Your task to perform on an android device: turn pop-ups off in chrome Image 0: 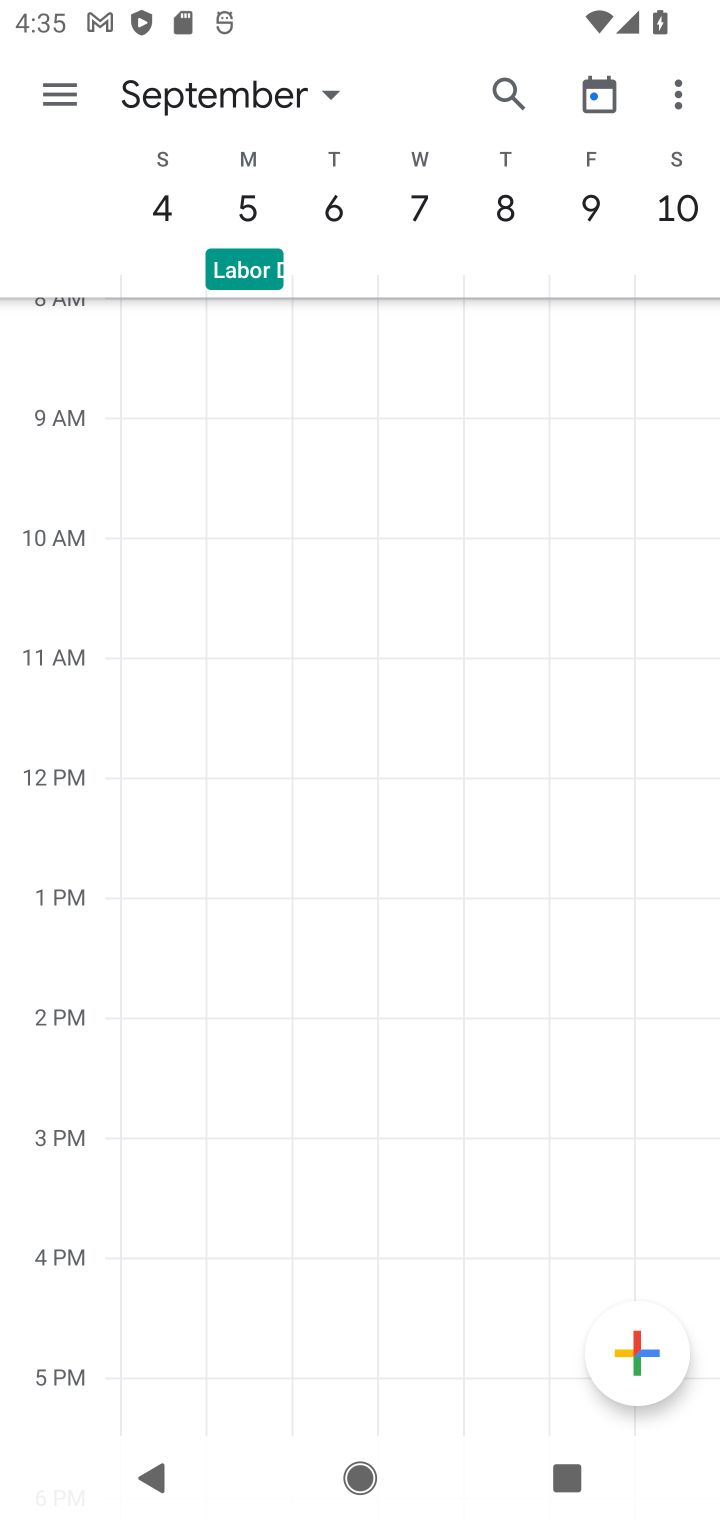
Step 0: press home button
Your task to perform on an android device: turn pop-ups off in chrome Image 1: 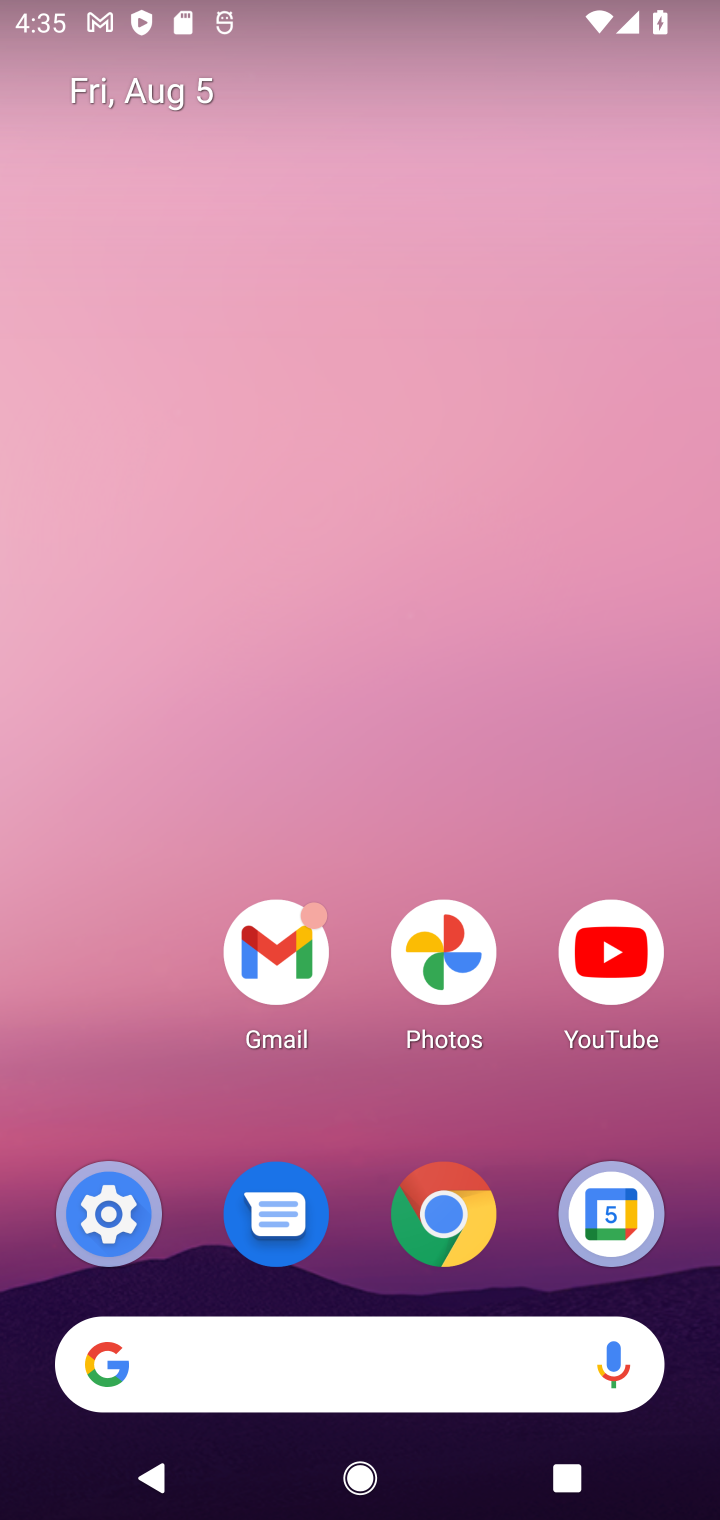
Step 1: click (431, 1205)
Your task to perform on an android device: turn pop-ups off in chrome Image 2: 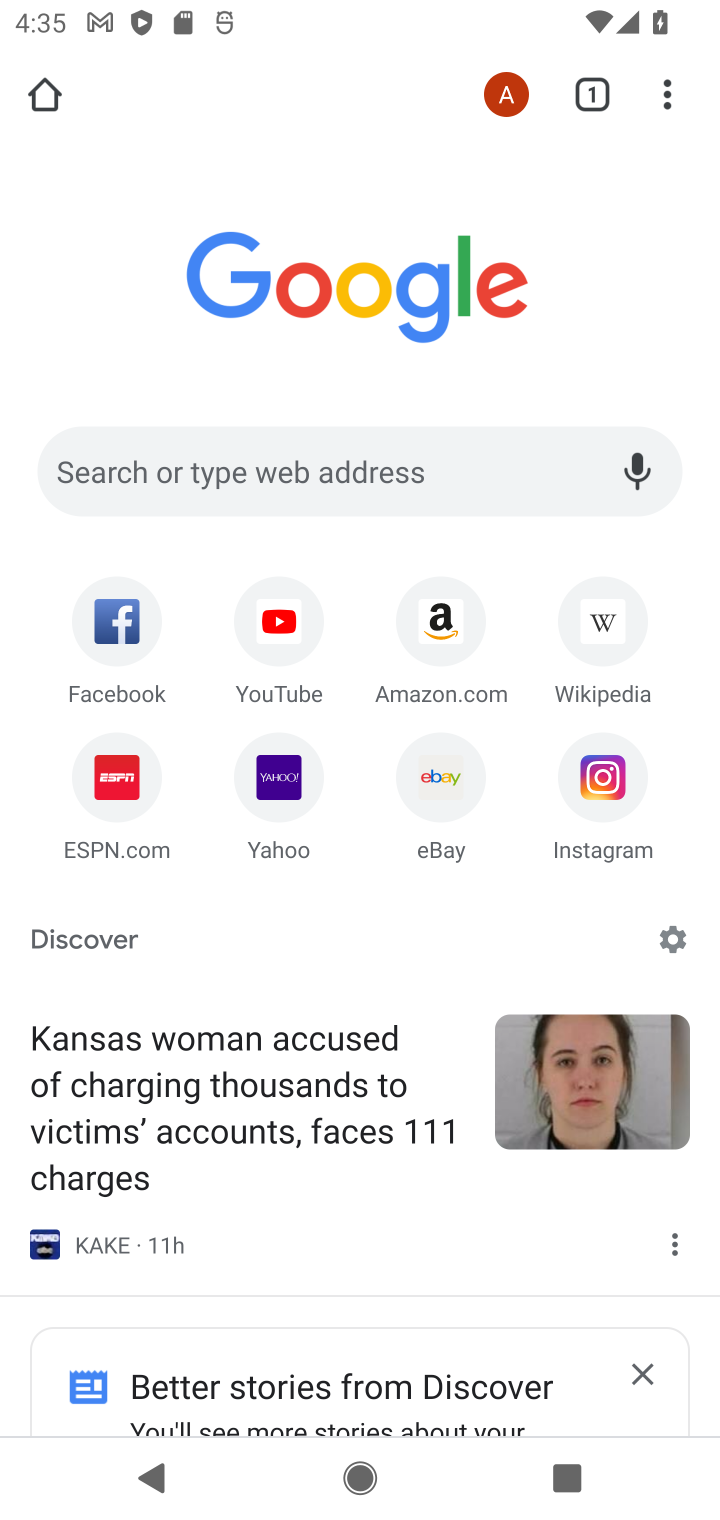
Step 2: click (668, 93)
Your task to perform on an android device: turn pop-ups off in chrome Image 3: 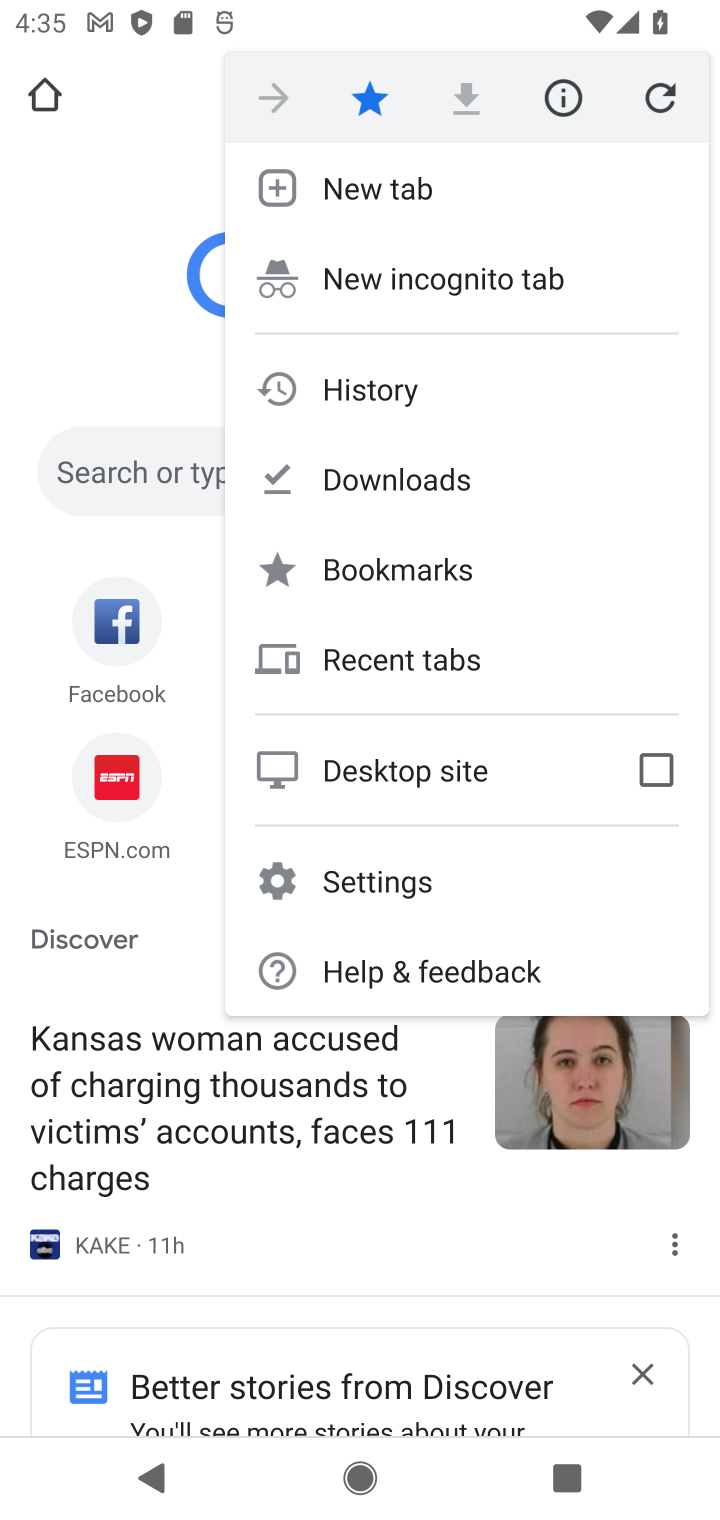
Step 3: click (407, 868)
Your task to perform on an android device: turn pop-ups off in chrome Image 4: 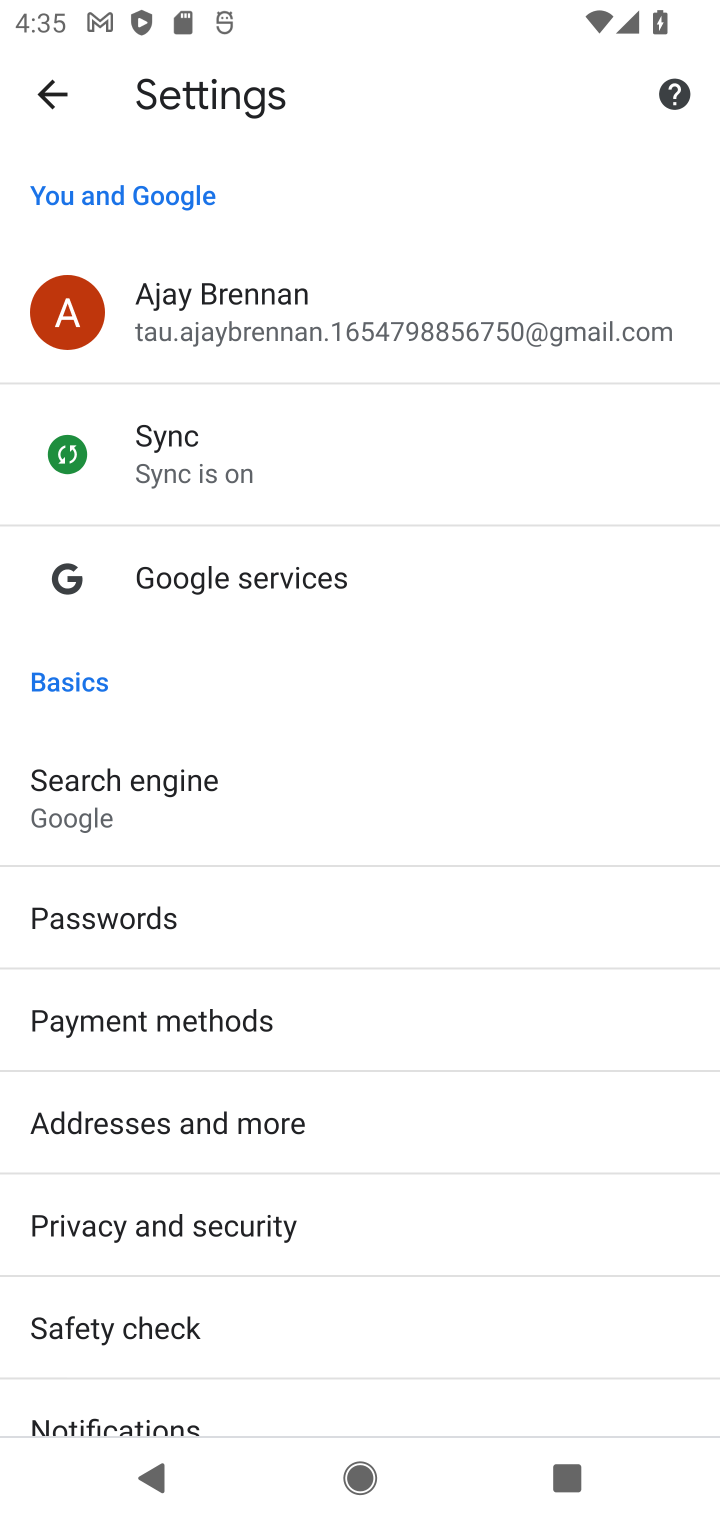
Step 4: drag from (462, 1330) to (470, 212)
Your task to perform on an android device: turn pop-ups off in chrome Image 5: 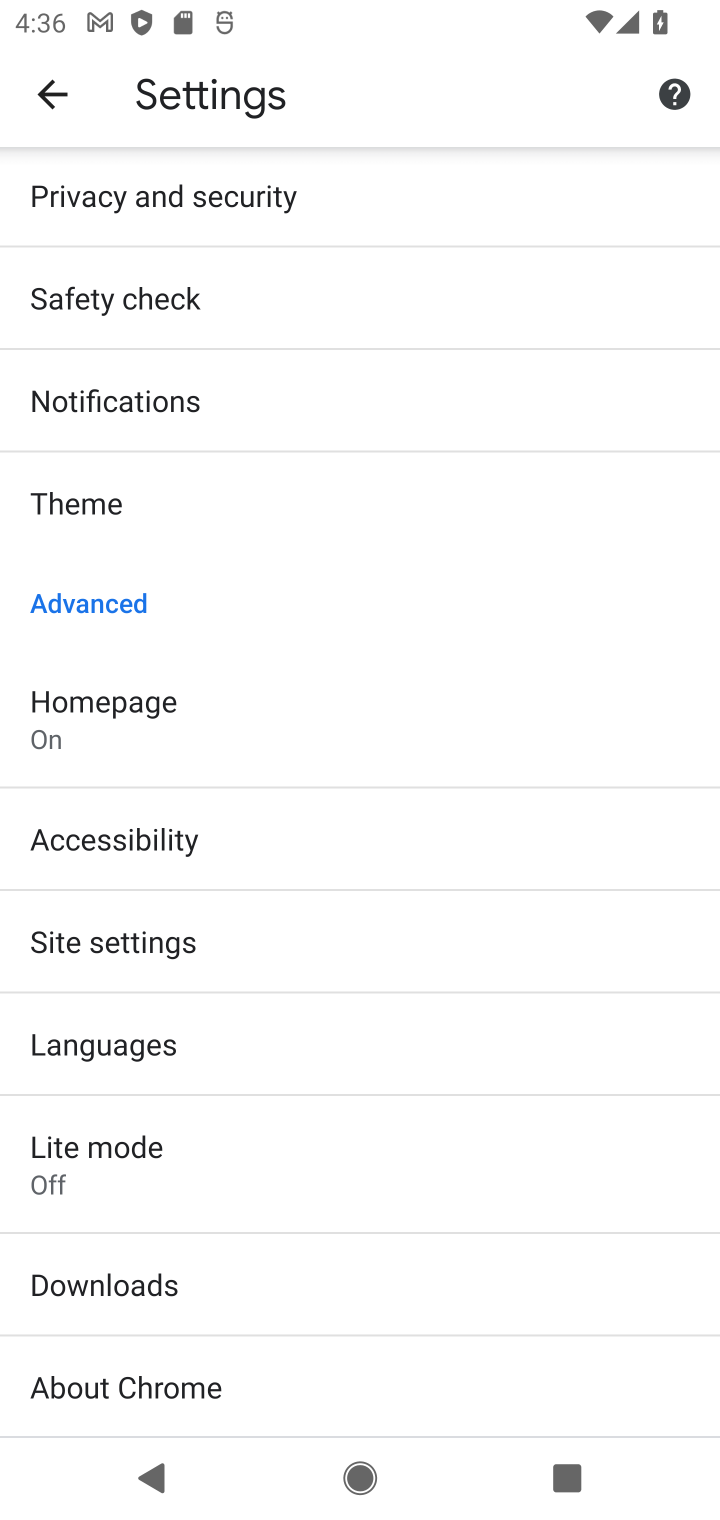
Step 5: click (186, 924)
Your task to perform on an android device: turn pop-ups off in chrome Image 6: 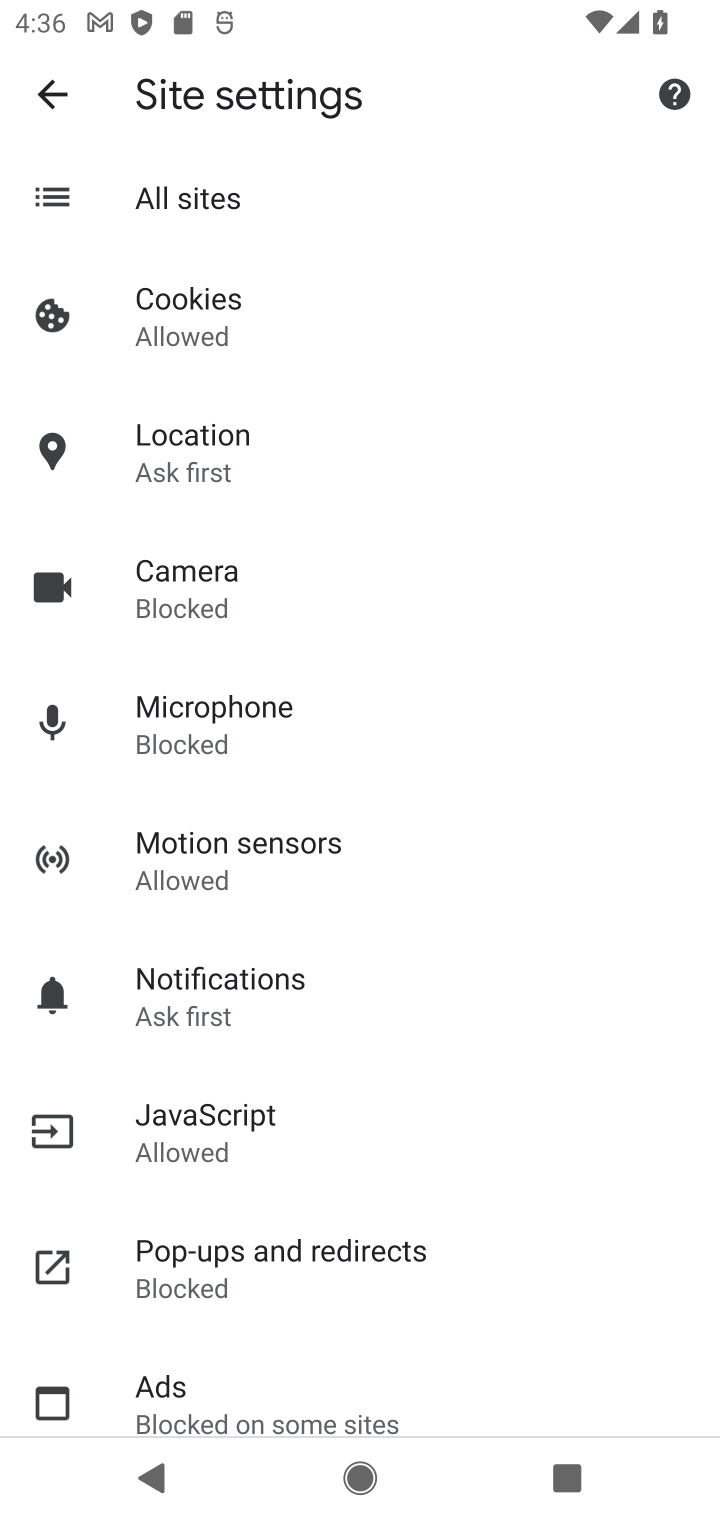
Step 6: click (296, 1264)
Your task to perform on an android device: turn pop-ups off in chrome Image 7: 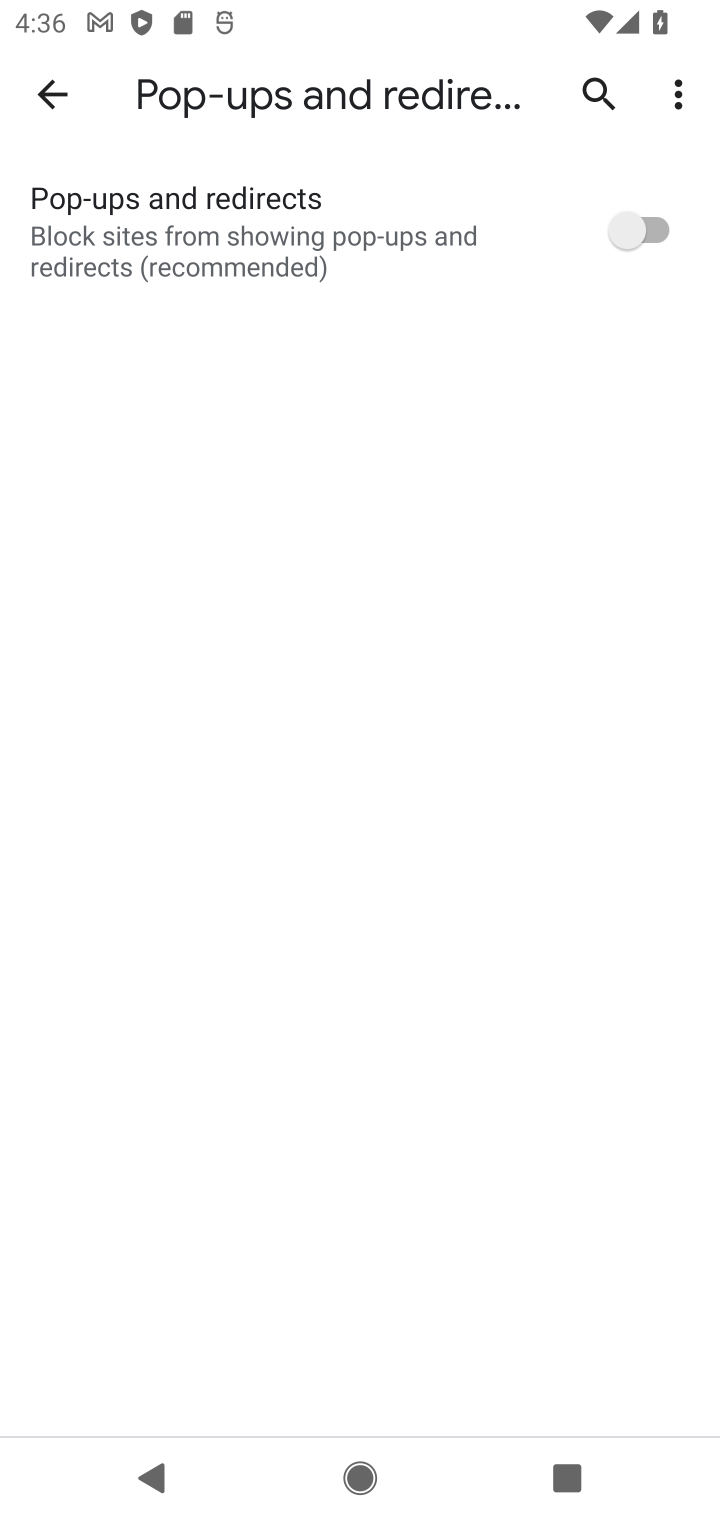
Step 7: task complete